Your task to perform on an android device: set the stopwatch Image 0: 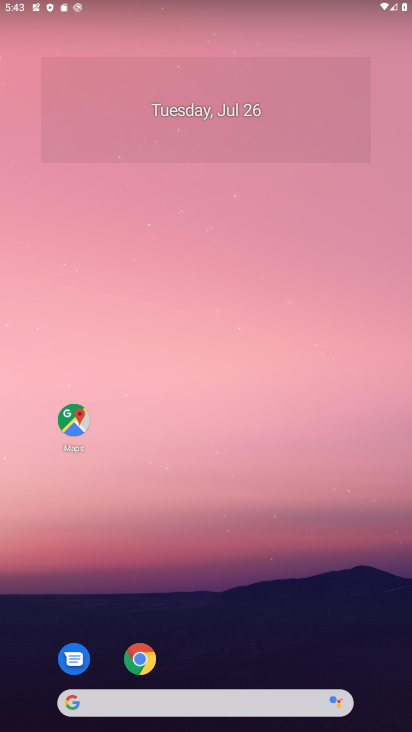
Step 0: drag from (255, 657) to (266, 291)
Your task to perform on an android device: set the stopwatch Image 1: 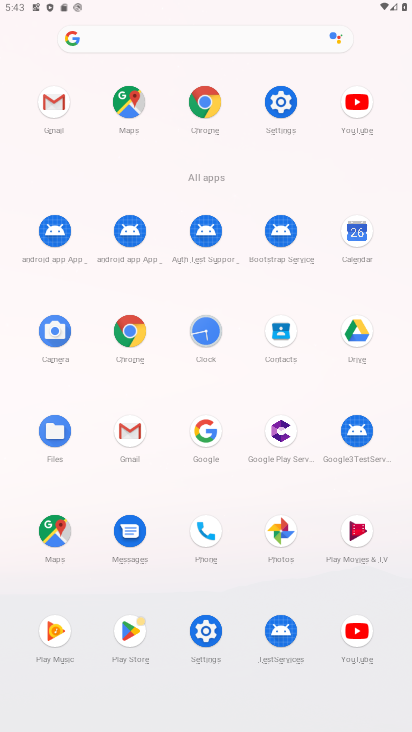
Step 1: click (208, 349)
Your task to perform on an android device: set the stopwatch Image 2: 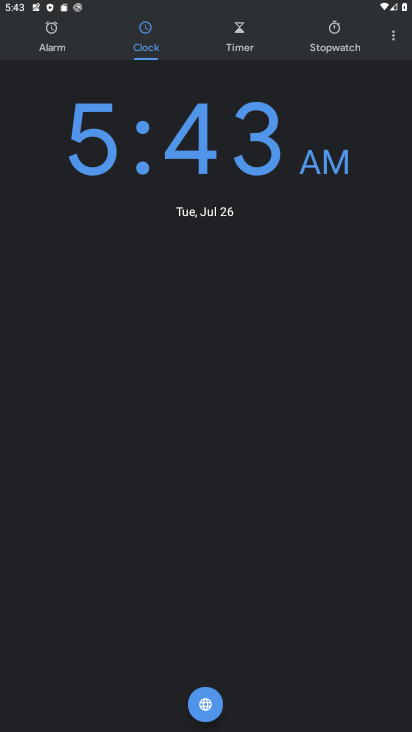
Step 2: task complete